Your task to perform on an android device: Search for sushi restaurants on Maps Image 0: 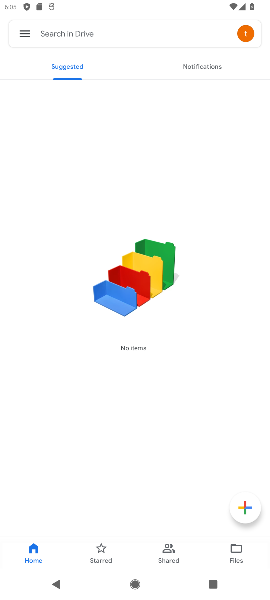
Step 0: press home button
Your task to perform on an android device: Search for sushi restaurants on Maps Image 1: 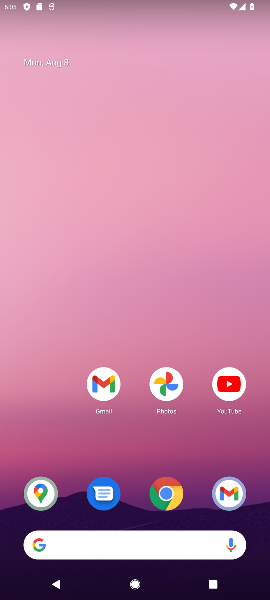
Step 1: click (33, 500)
Your task to perform on an android device: Search for sushi restaurants on Maps Image 2: 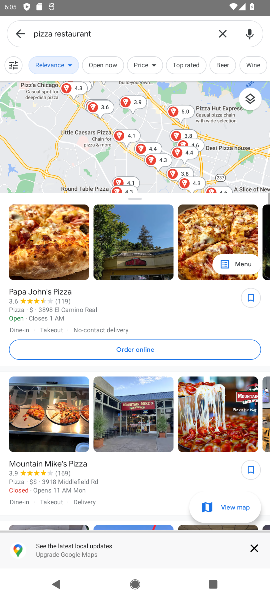
Step 2: click (223, 28)
Your task to perform on an android device: Search for sushi restaurants on Maps Image 3: 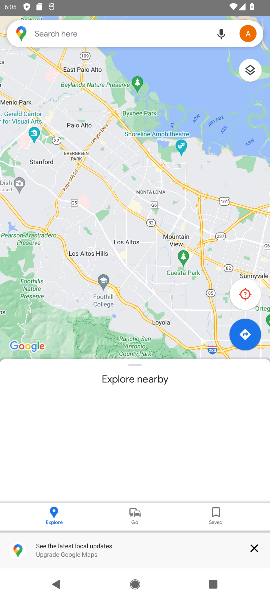
Step 3: click (107, 34)
Your task to perform on an android device: Search for sushi restaurants on Maps Image 4: 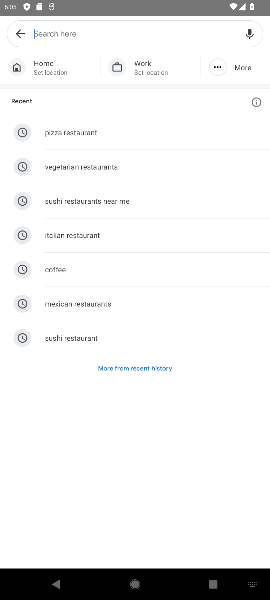
Step 4: click (71, 200)
Your task to perform on an android device: Search for sushi restaurants on Maps Image 5: 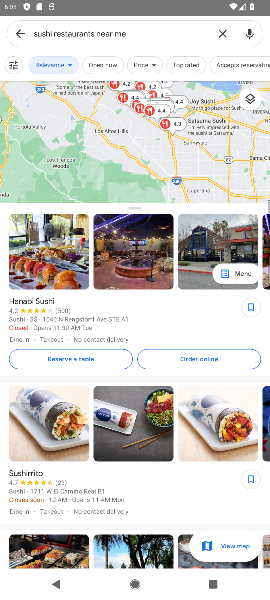
Step 5: task complete